Your task to perform on an android device: clear all cookies in the chrome app Image 0: 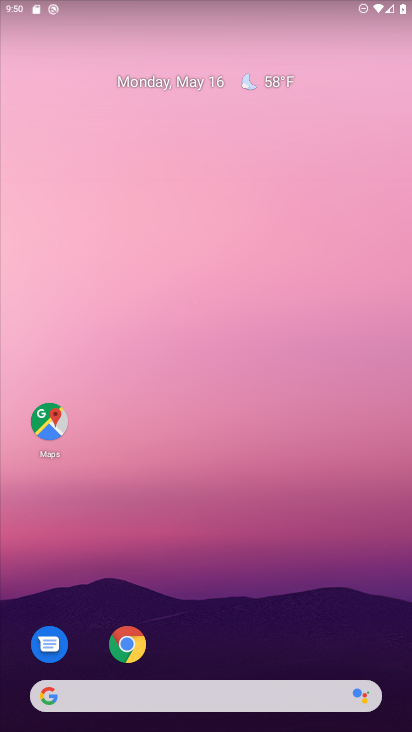
Step 0: click (114, 659)
Your task to perform on an android device: clear all cookies in the chrome app Image 1: 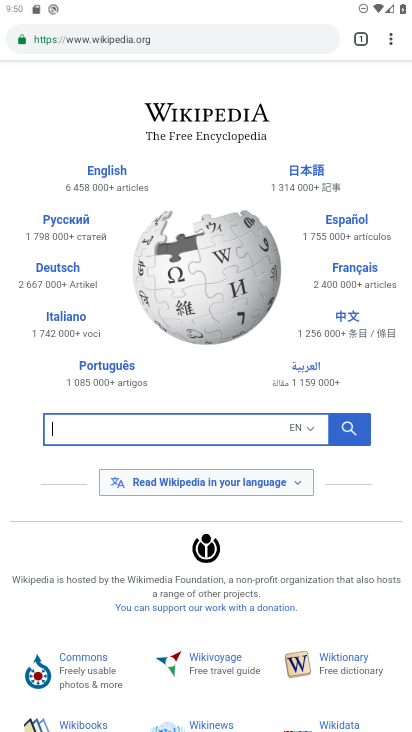
Step 1: drag from (393, 40) to (242, 222)
Your task to perform on an android device: clear all cookies in the chrome app Image 2: 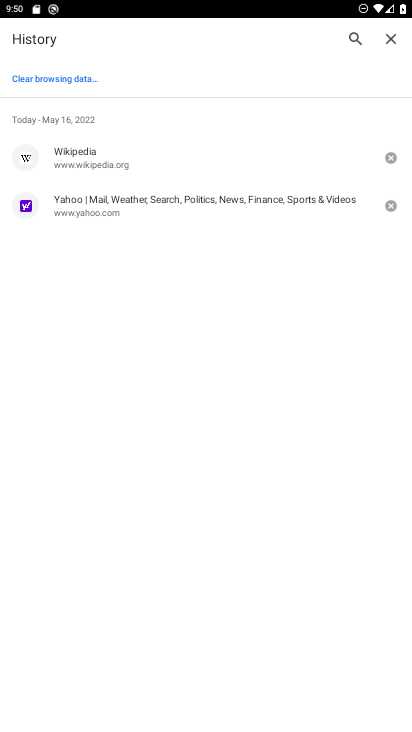
Step 2: click (48, 79)
Your task to perform on an android device: clear all cookies in the chrome app Image 3: 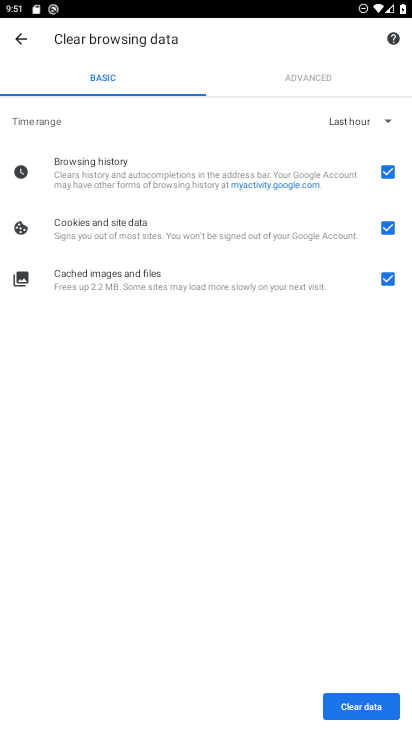
Step 3: click (345, 699)
Your task to perform on an android device: clear all cookies in the chrome app Image 4: 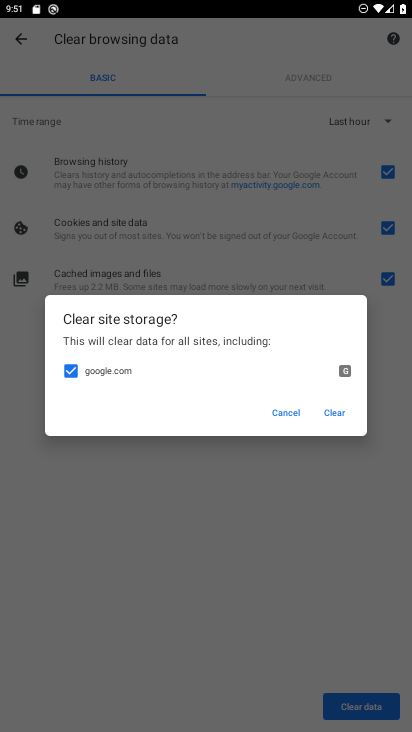
Step 4: click (330, 408)
Your task to perform on an android device: clear all cookies in the chrome app Image 5: 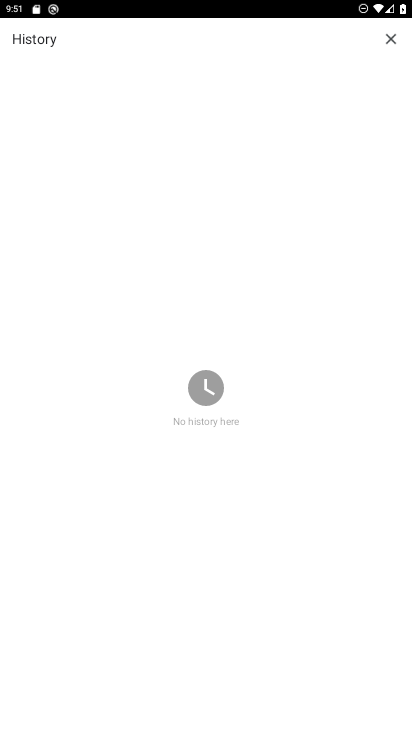
Step 5: task complete